Your task to perform on an android device: allow cookies in the chrome app Image 0: 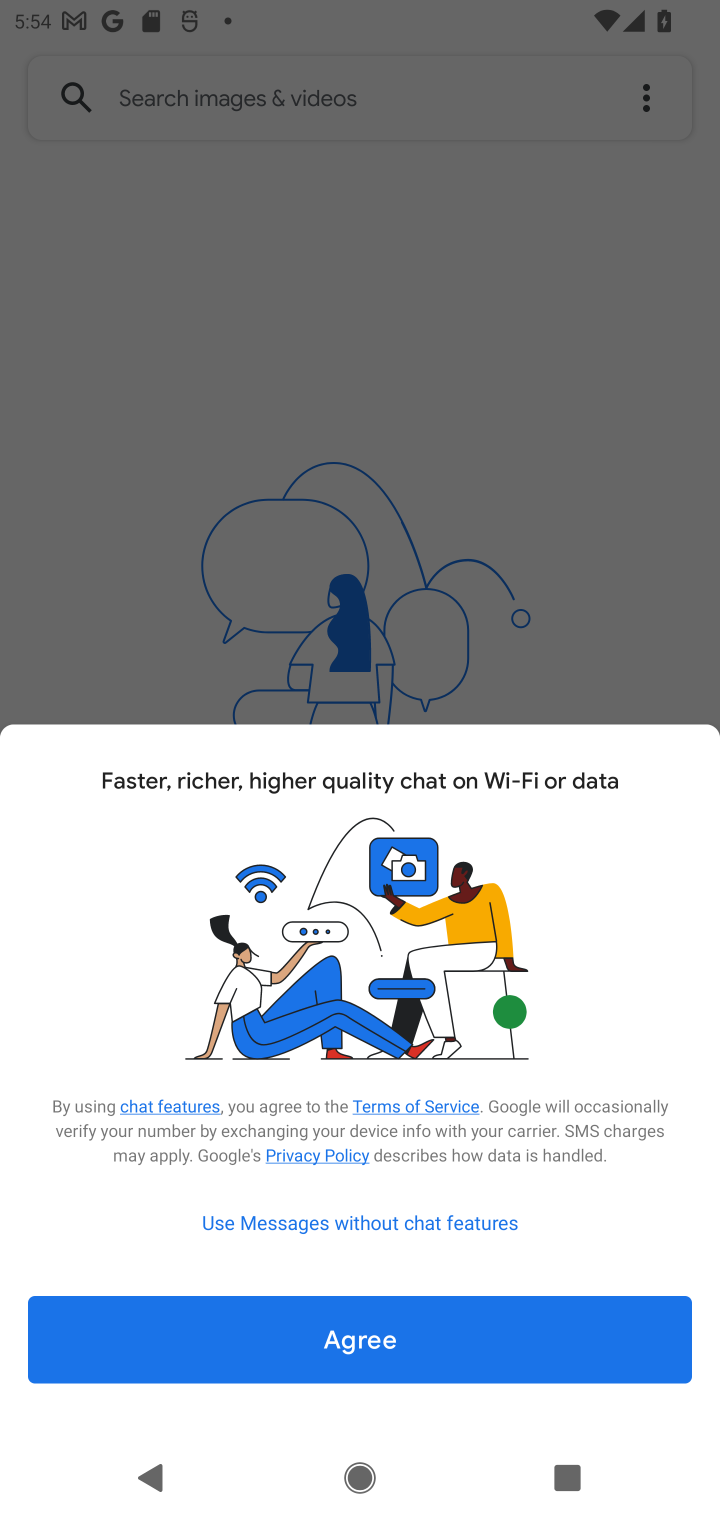
Step 0: press home button
Your task to perform on an android device: allow cookies in the chrome app Image 1: 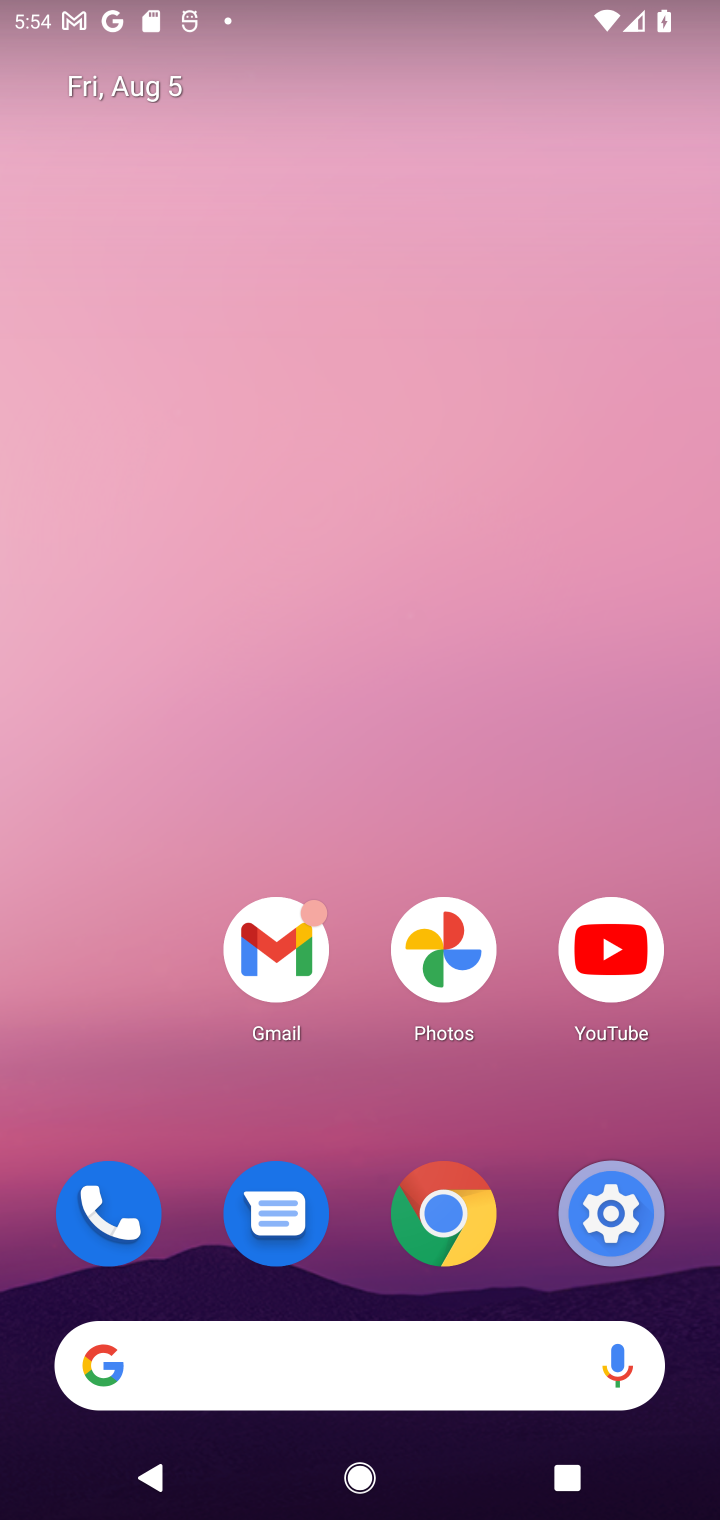
Step 1: click (462, 1260)
Your task to perform on an android device: allow cookies in the chrome app Image 2: 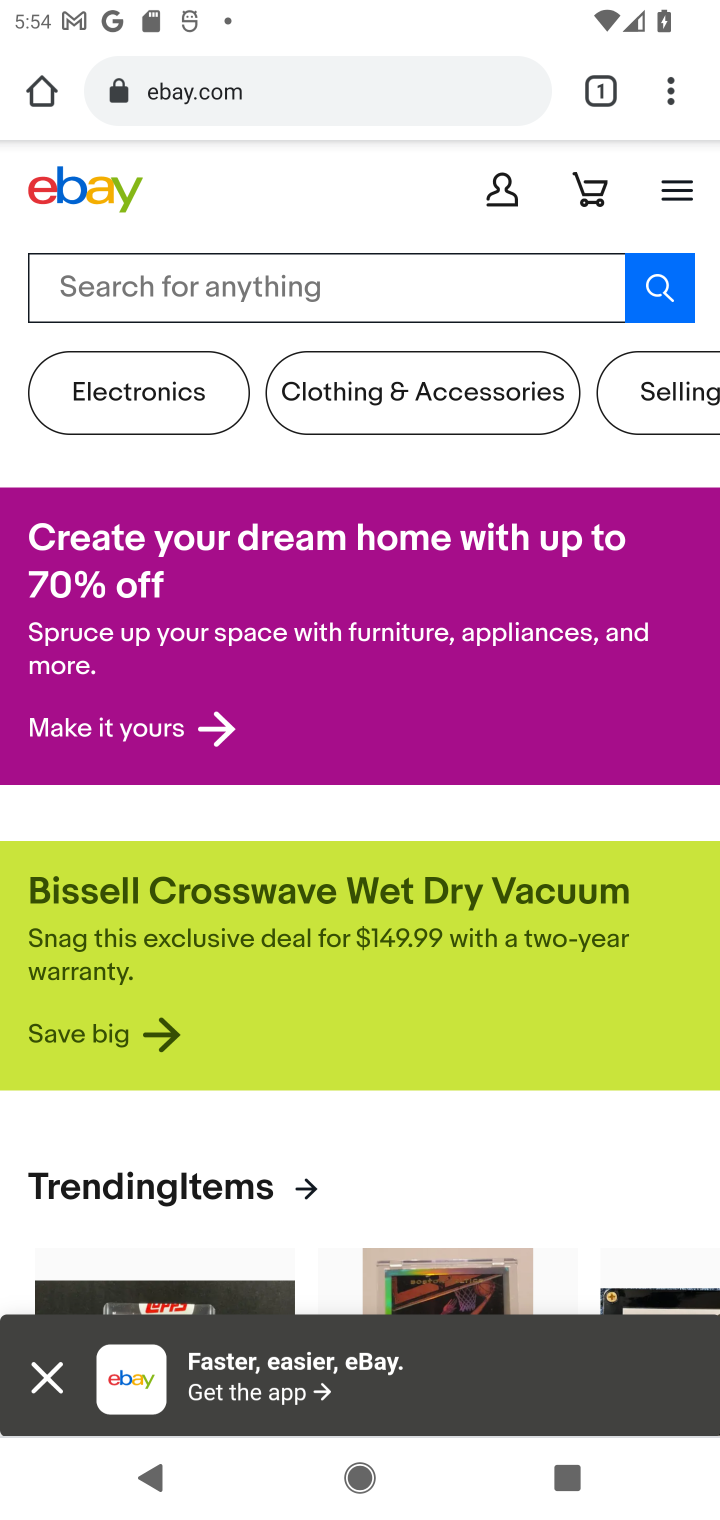
Step 2: click (659, 107)
Your task to perform on an android device: allow cookies in the chrome app Image 3: 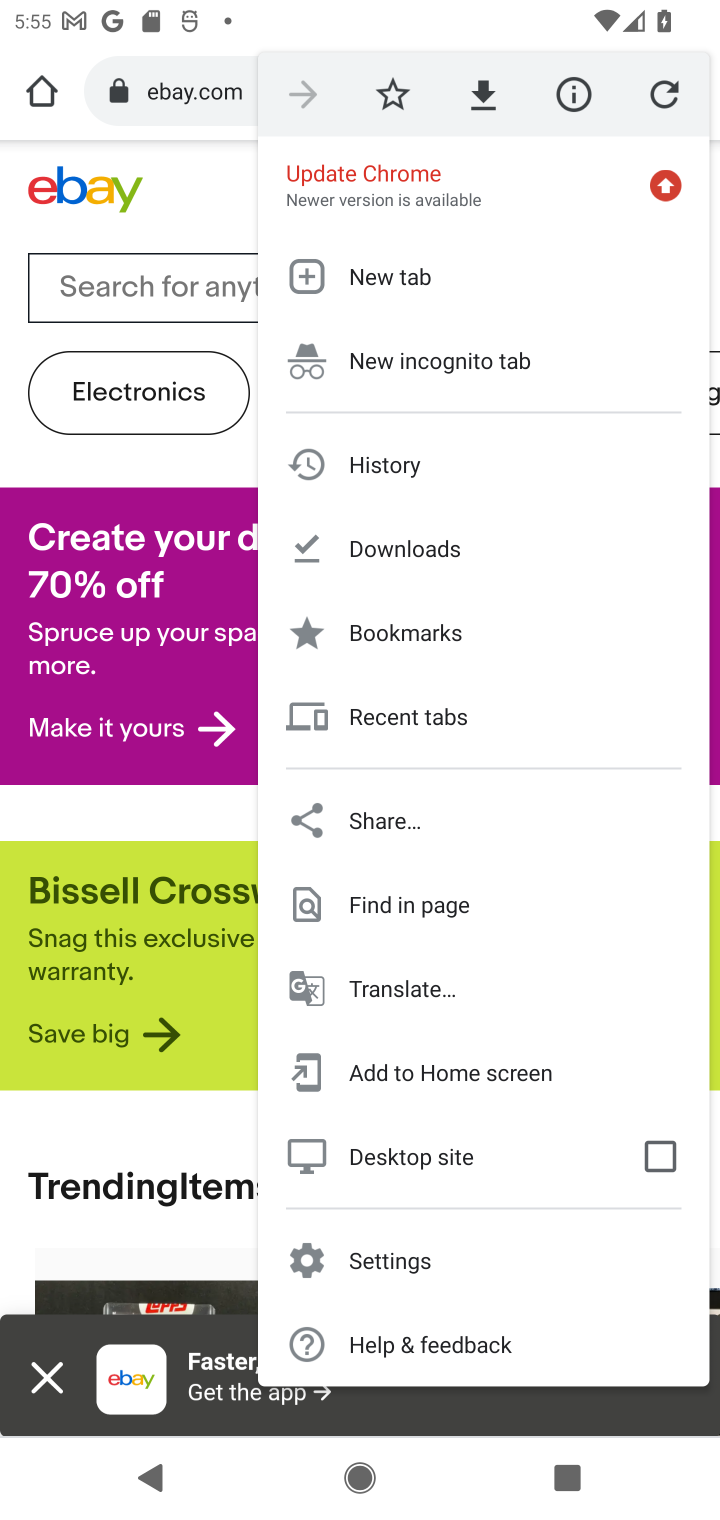
Step 3: click (393, 1234)
Your task to perform on an android device: allow cookies in the chrome app Image 4: 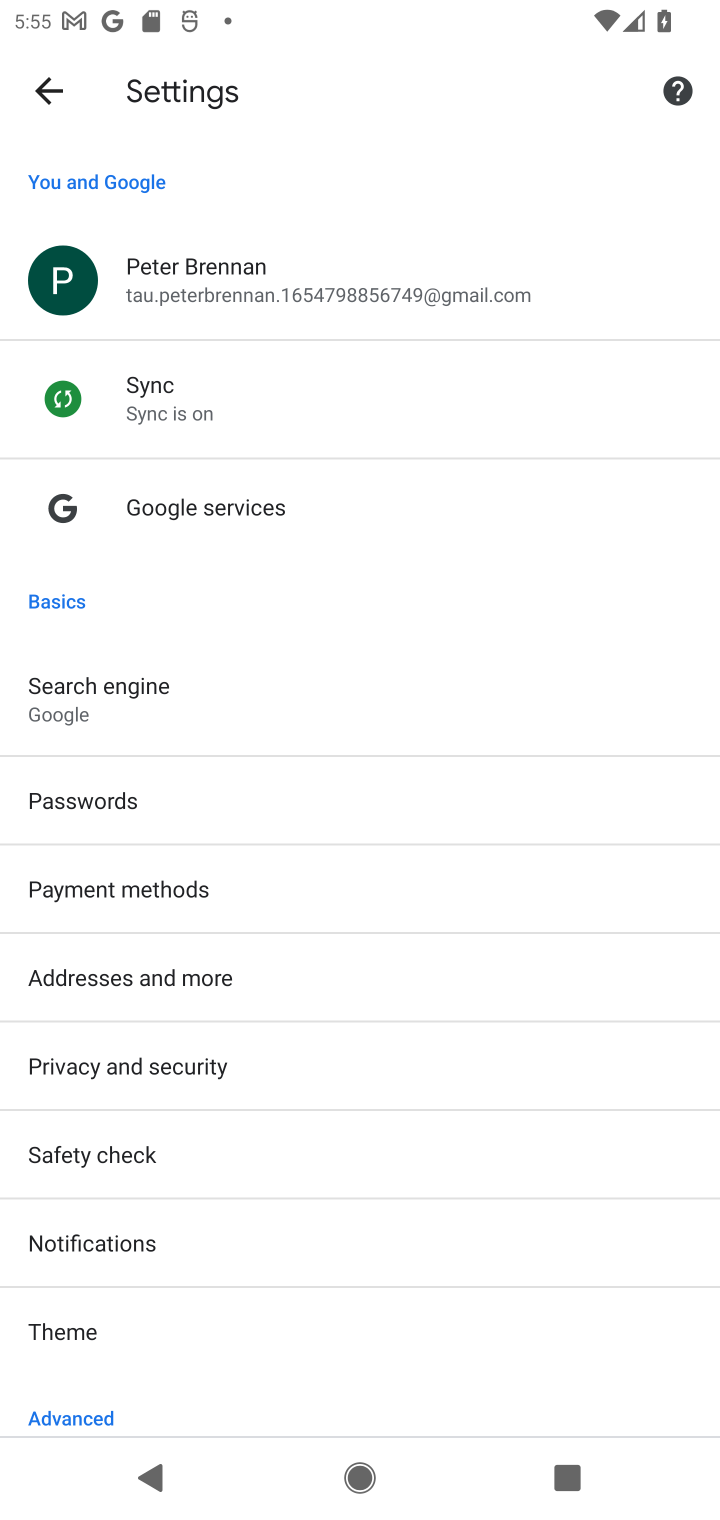
Step 4: task complete